Your task to perform on an android device: open sync settings in chrome Image 0: 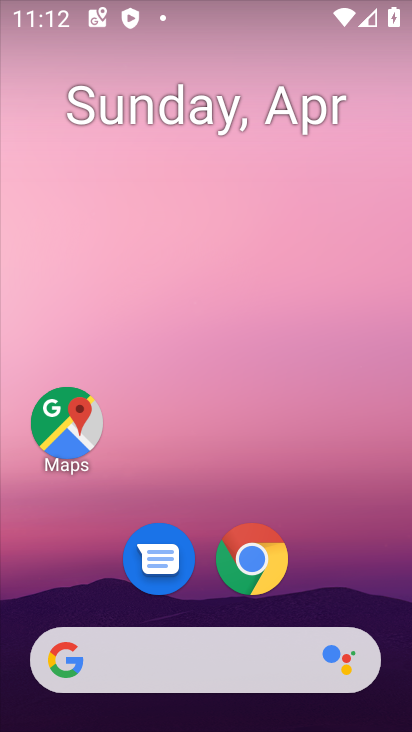
Step 0: click (233, 562)
Your task to perform on an android device: open sync settings in chrome Image 1: 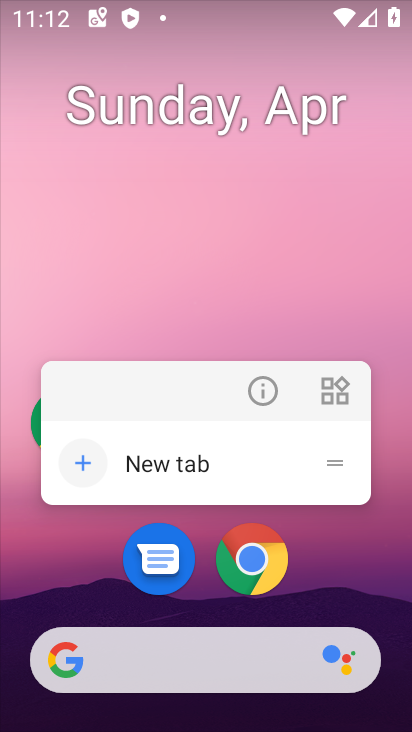
Step 1: click (243, 569)
Your task to perform on an android device: open sync settings in chrome Image 2: 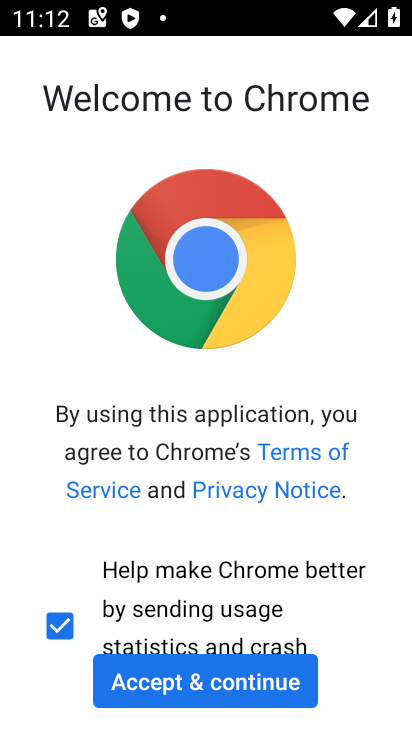
Step 2: click (215, 688)
Your task to perform on an android device: open sync settings in chrome Image 3: 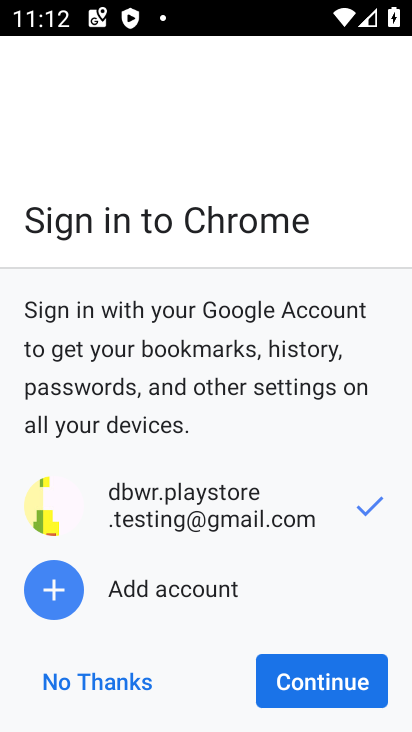
Step 3: click (281, 674)
Your task to perform on an android device: open sync settings in chrome Image 4: 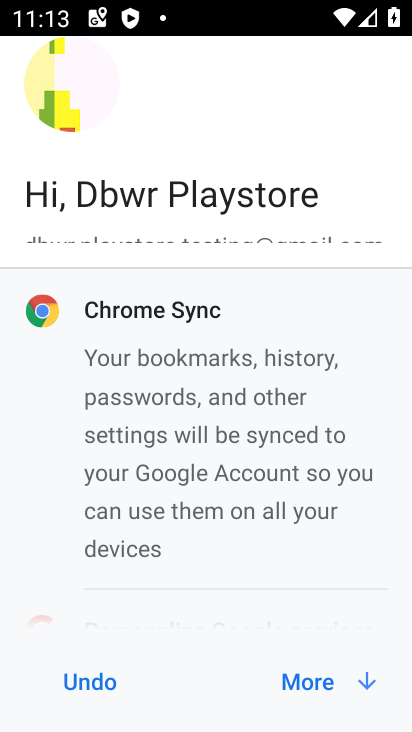
Step 4: click (271, 692)
Your task to perform on an android device: open sync settings in chrome Image 5: 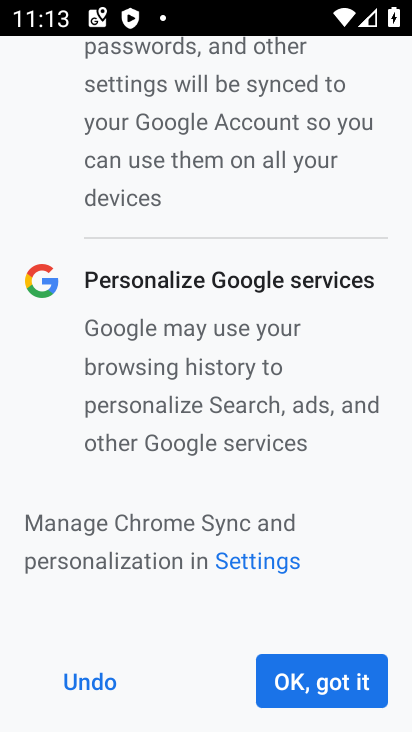
Step 5: click (271, 692)
Your task to perform on an android device: open sync settings in chrome Image 6: 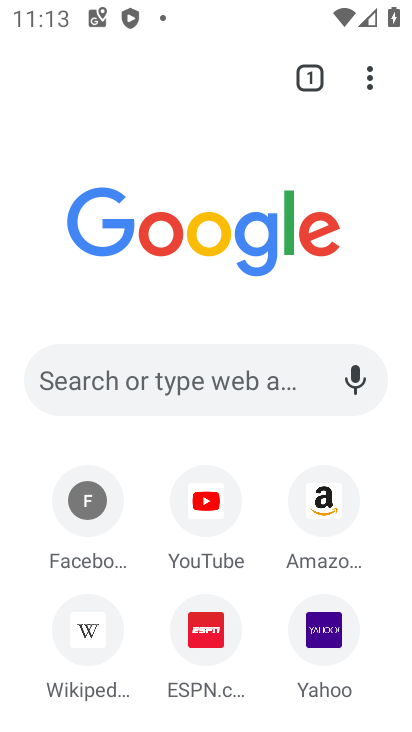
Step 6: click (375, 70)
Your task to perform on an android device: open sync settings in chrome Image 7: 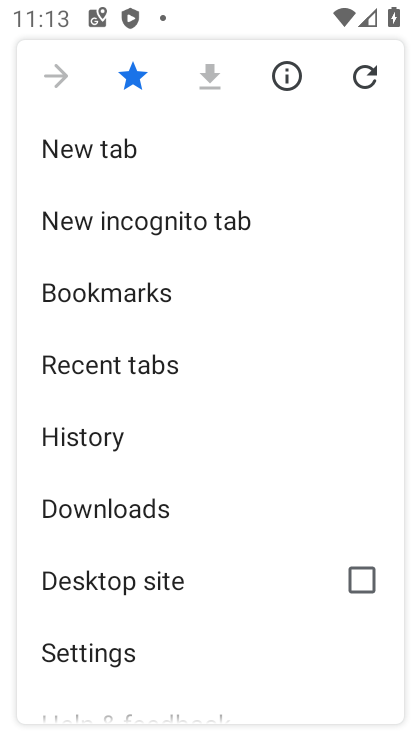
Step 7: click (139, 643)
Your task to perform on an android device: open sync settings in chrome Image 8: 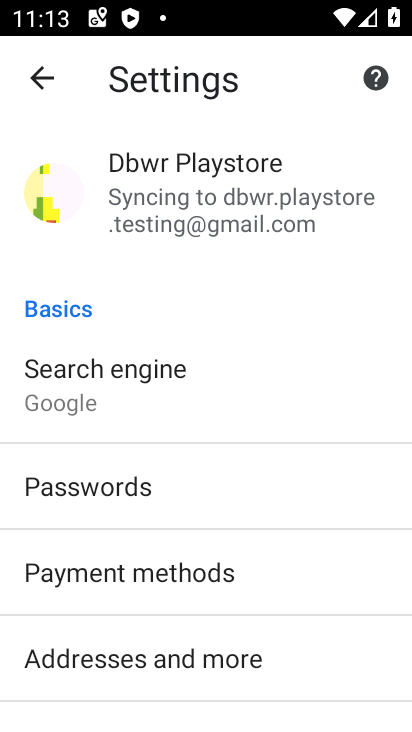
Step 8: click (205, 207)
Your task to perform on an android device: open sync settings in chrome Image 9: 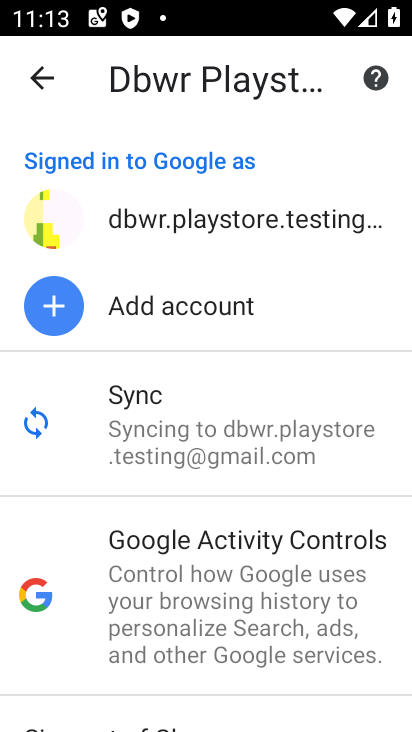
Step 9: click (204, 433)
Your task to perform on an android device: open sync settings in chrome Image 10: 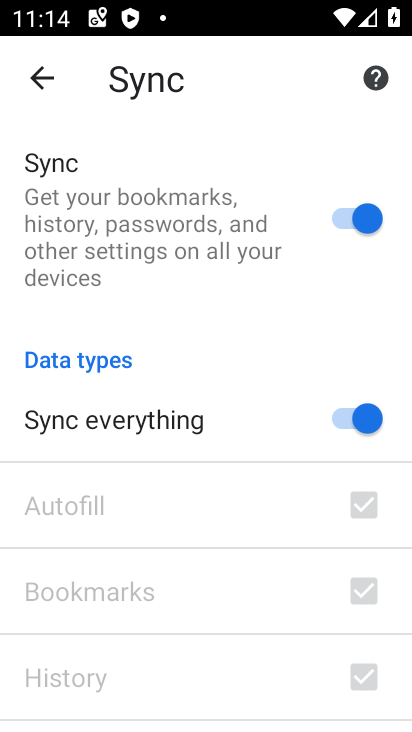
Step 10: task complete